Your task to perform on an android device: Open Google Chrome Image 0: 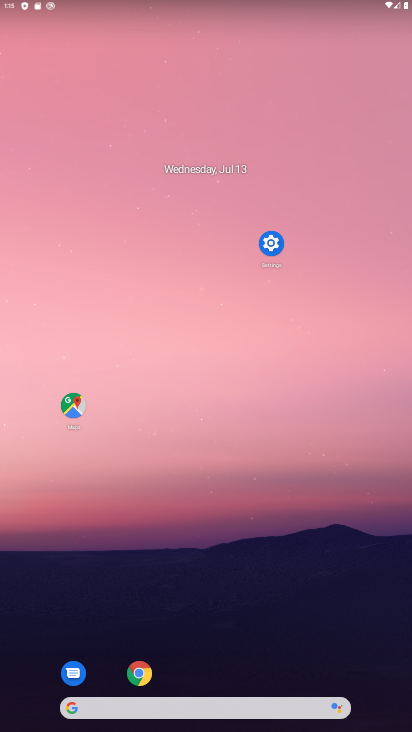
Step 0: click (143, 664)
Your task to perform on an android device: Open Google Chrome Image 1: 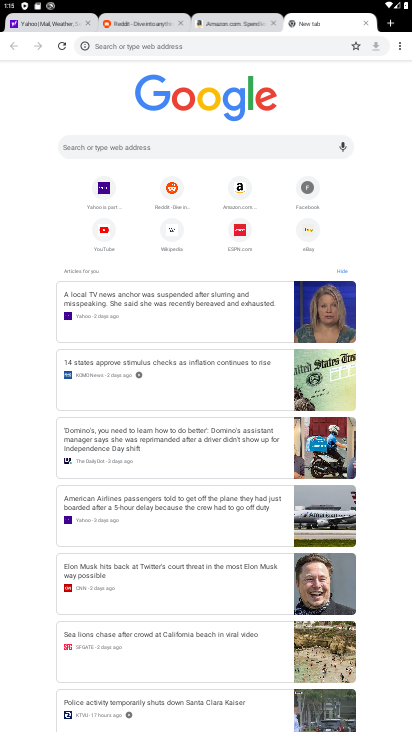
Step 1: task complete